Your task to perform on an android device: View the shopping cart on amazon. Search for "apple airpods" on amazon, select the first entry, add it to the cart, then select checkout. Image 0: 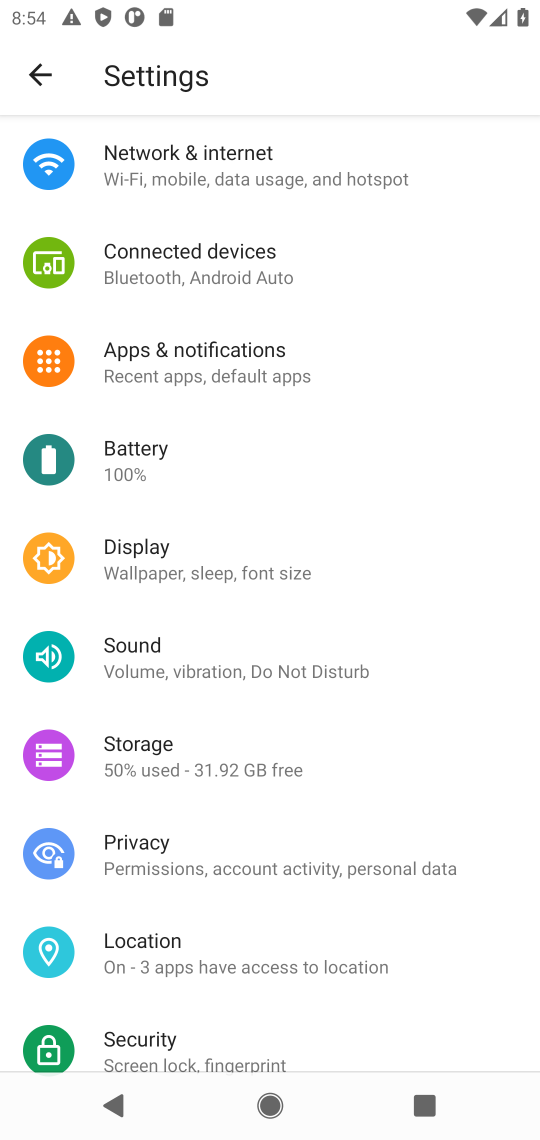
Step 0: task complete